Your task to perform on an android device: make emails show in primary in the gmail app Image 0: 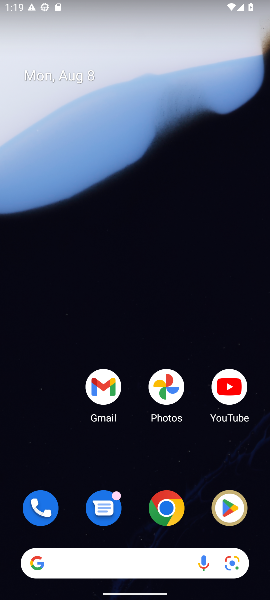
Step 0: click (101, 381)
Your task to perform on an android device: make emails show in primary in the gmail app Image 1: 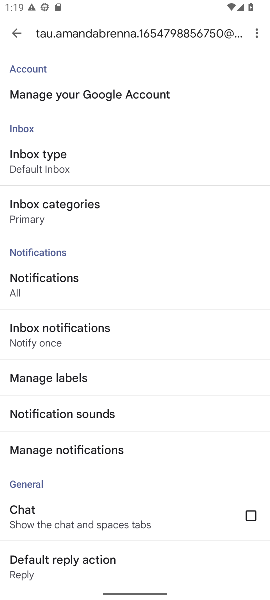
Step 1: click (101, 381)
Your task to perform on an android device: make emails show in primary in the gmail app Image 2: 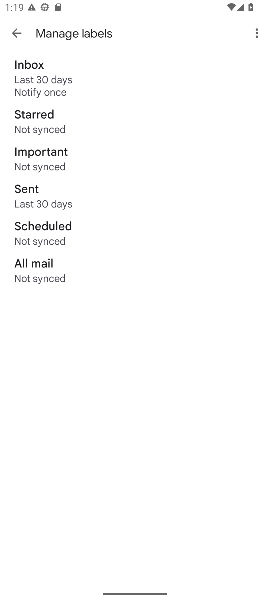
Step 2: click (16, 33)
Your task to perform on an android device: make emails show in primary in the gmail app Image 3: 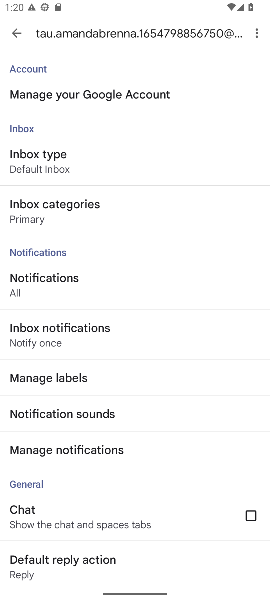
Step 3: drag from (85, 495) to (91, 169)
Your task to perform on an android device: make emails show in primary in the gmail app Image 4: 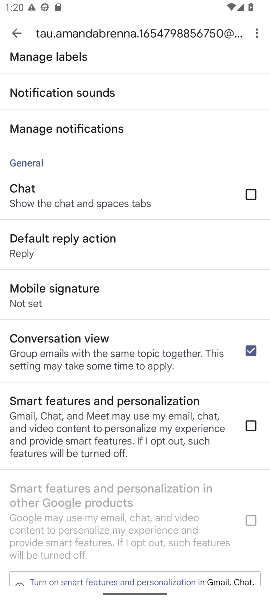
Step 4: click (116, 568)
Your task to perform on an android device: make emails show in primary in the gmail app Image 5: 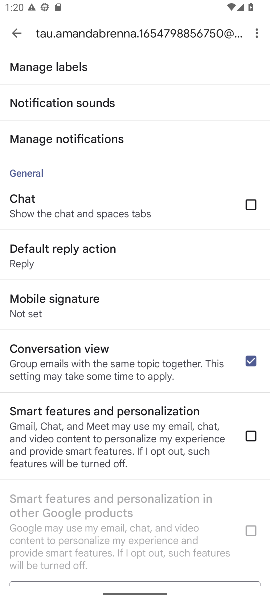
Step 5: drag from (71, 554) to (67, 595)
Your task to perform on an android device: make emails show in primary in the gmail app Image 6: 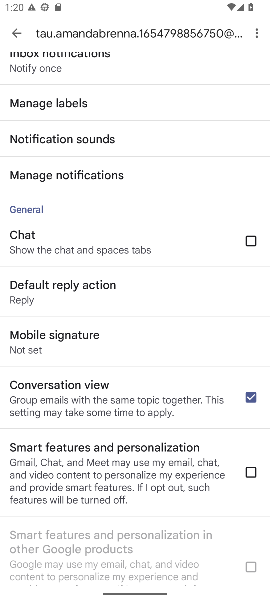
Step 6: click (37, 359)
Your task to perform on an android device: make emails show in primary in the gmail app Image 7: 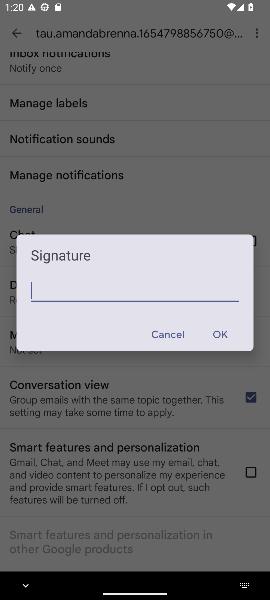
Step 7: click (166, 334)
Your task to perform on an android device: make emails show in primary in the gmail app Image 8: 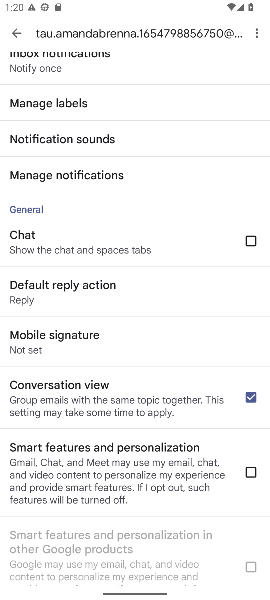
Step 8: task complete